Your task to perform on an android device: Play the new Bruno Mars video on YouTube Image 0: 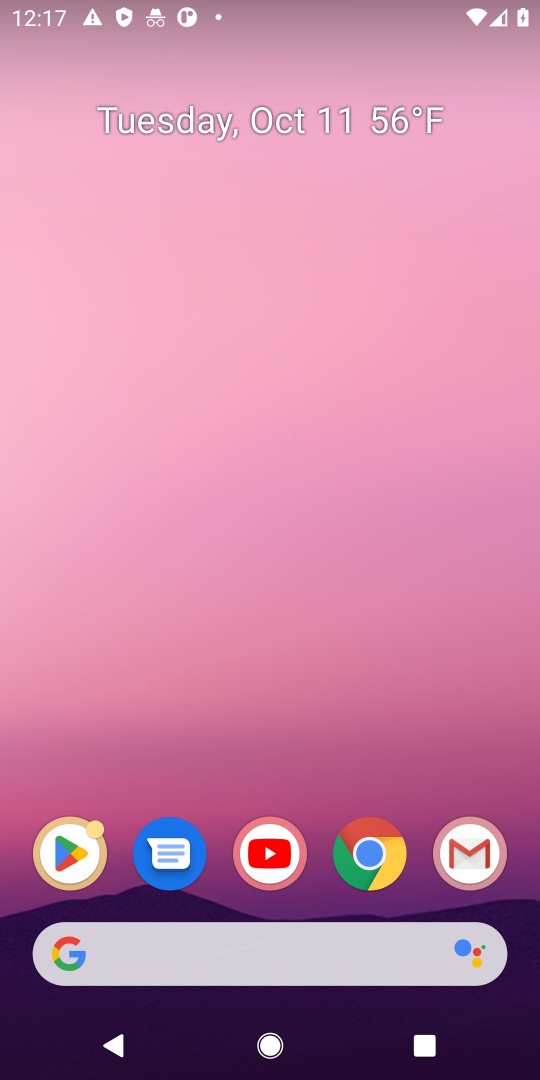
Step 0: drag from (270, 730) to (529, 946)
Your task to perform on an android device: Play the new Bruno Mars video on YouTube Image 1: 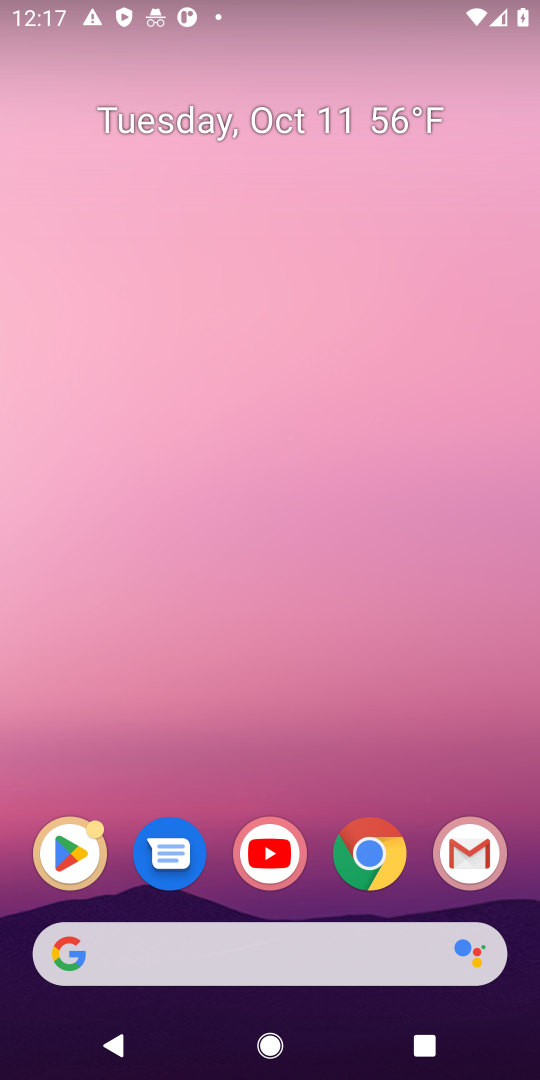
Step 1: drag from (307, 789) to (379, 18)
Your task to perform on an android device: Play the new Bruno Mars video on YouTube Image 2: 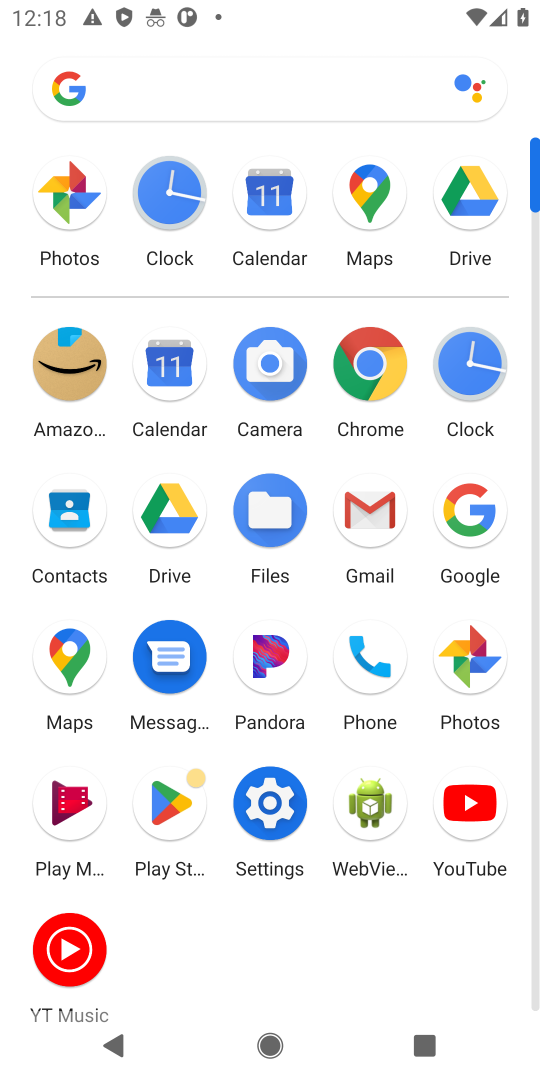
Step 2: click (466, 799)
Your task to perform on an android device: Play the new Bruno Mars video on YouTube Image 3: 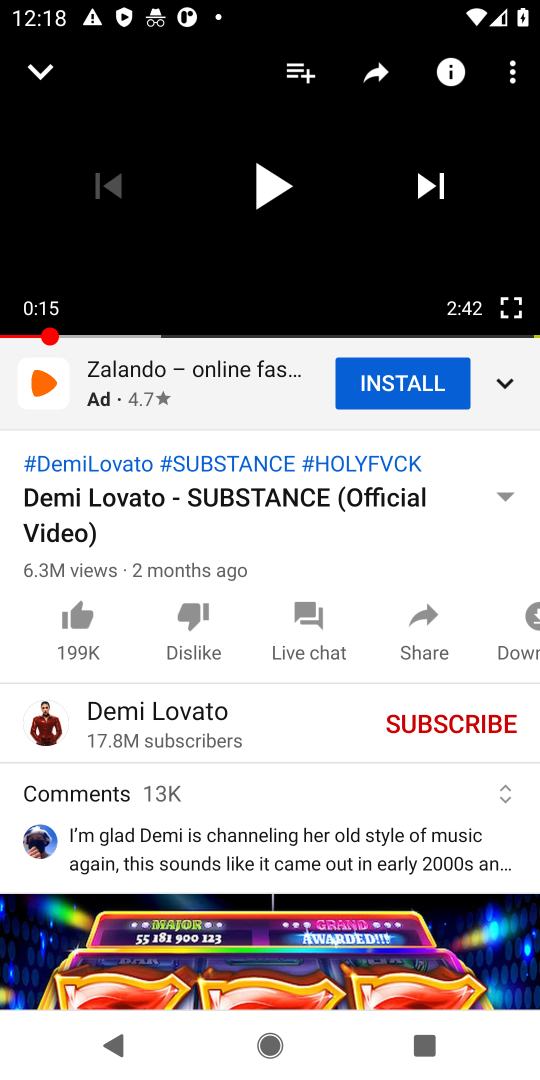
Step 3: drag from (321, 185) to (220, 976)
Your task to perform on an android device: Play the new Bruno Mars video on YouTube Image 4: 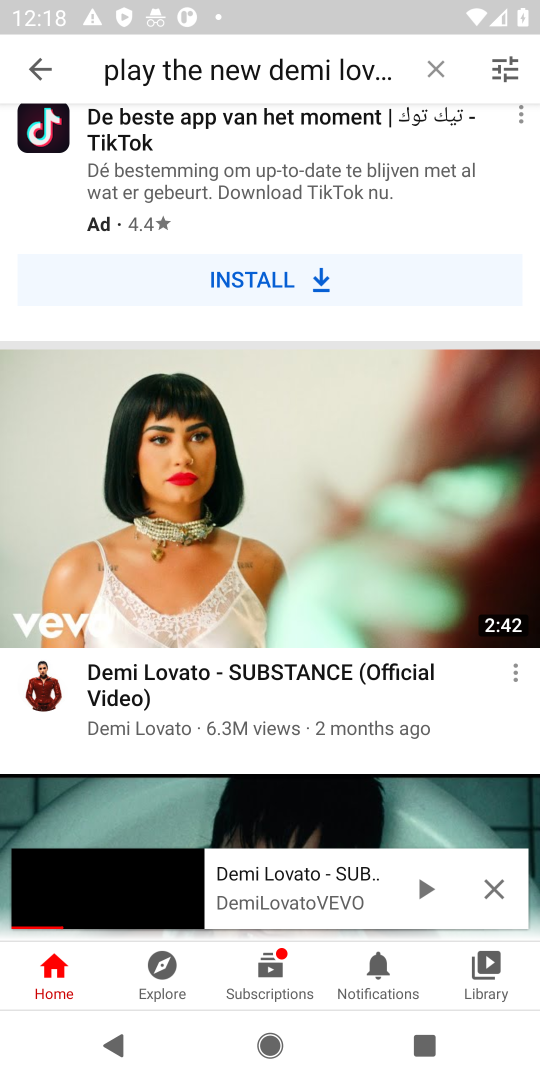
Step 4: click (438, 68)
Your task to perform on an android device: Play the new Bruno Mars video on YouTube Image 5: 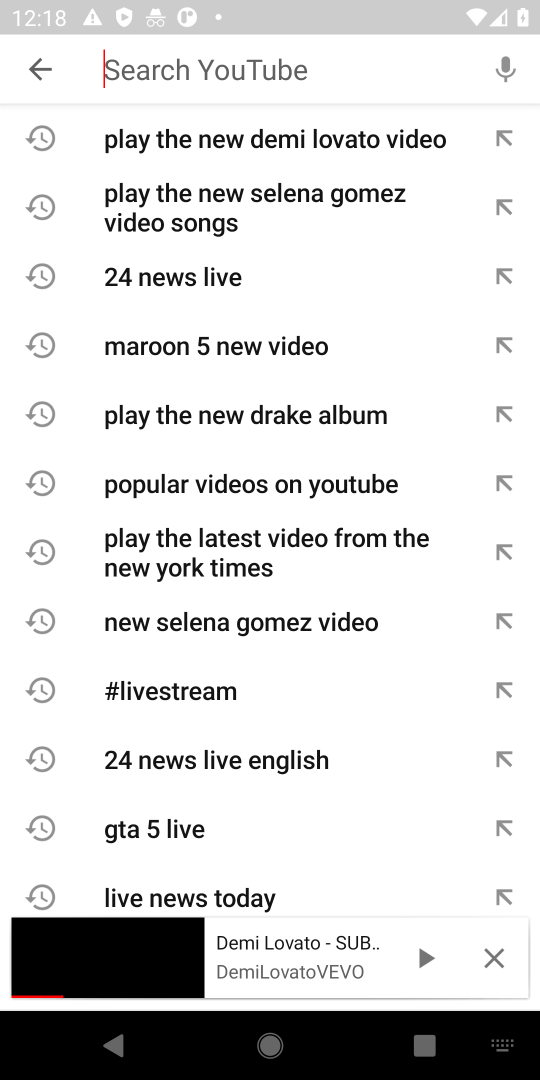
Step 5: type "Play the new Bruno Mars video on YouTube"
Your task to perform on an android device: Play the new Bruno Mars video on YouTube Image 6: 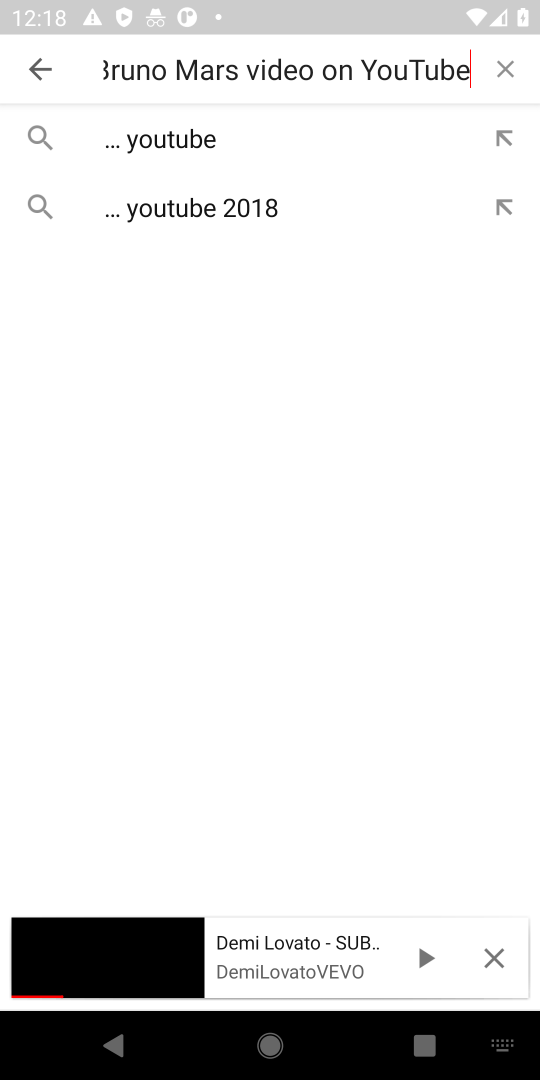
Step 6: click (166, 141)
Your task to perform on an android device: Play the new Bruno Mars video on YouTube Image 7: 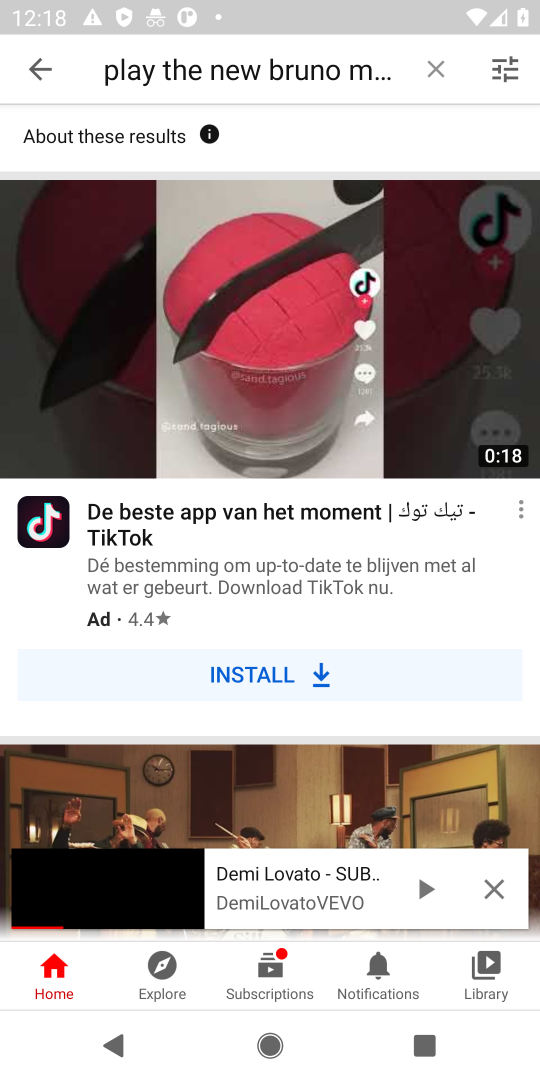
Step 7: drag from (267, 752) to (368, 217)
Your task to perform on an android device: Play the new Bruno Mars video on YouTube Image 8: 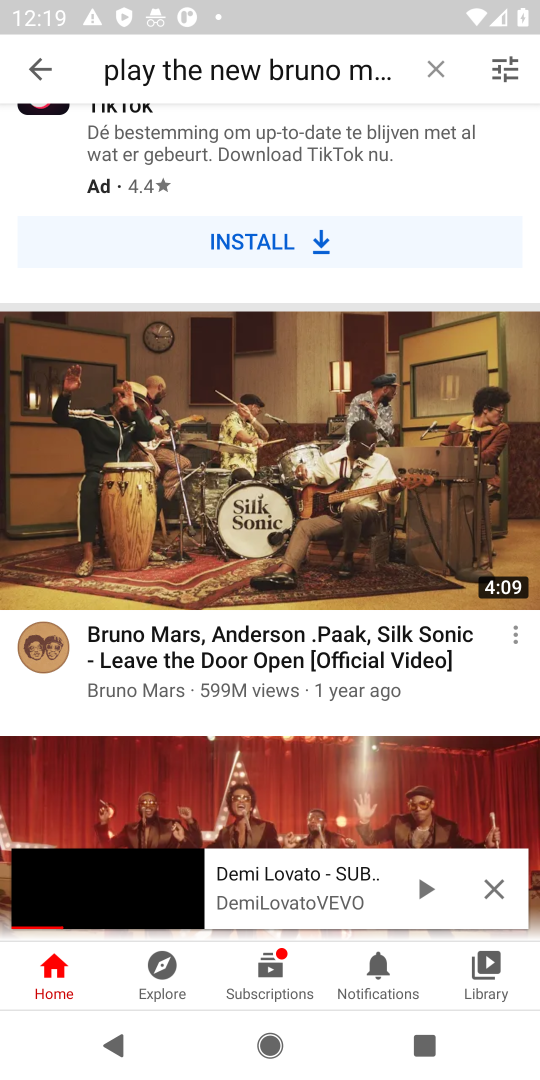
Step 8: click (216, 520)
Your task to perform on an android device: Play the new Bruno Mars video on YouTube Image 9: 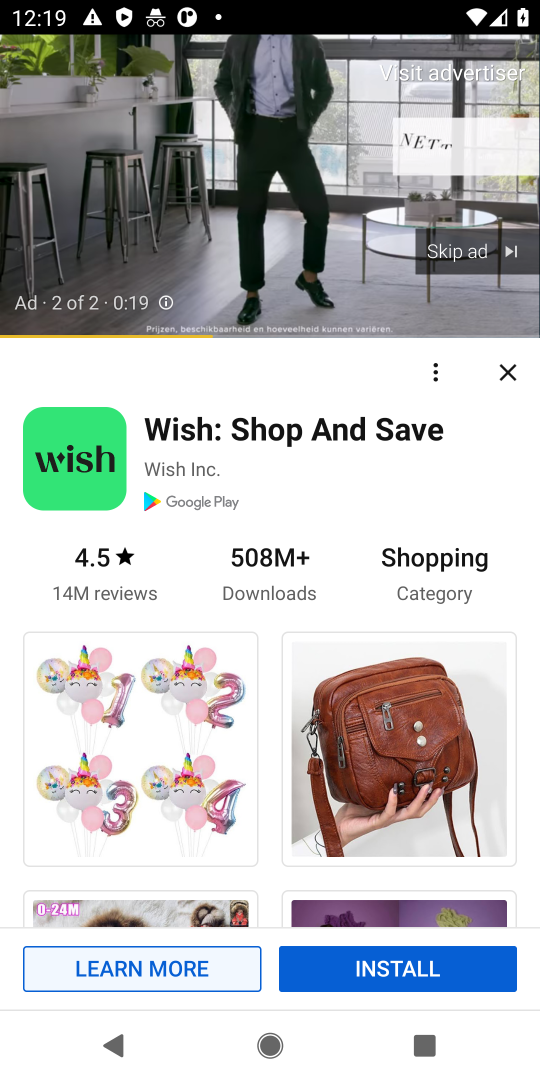
Step 9: click (473, 254)
Your task to perform on an android device: Play the new Bruno Mars video on YouTube Image 10: 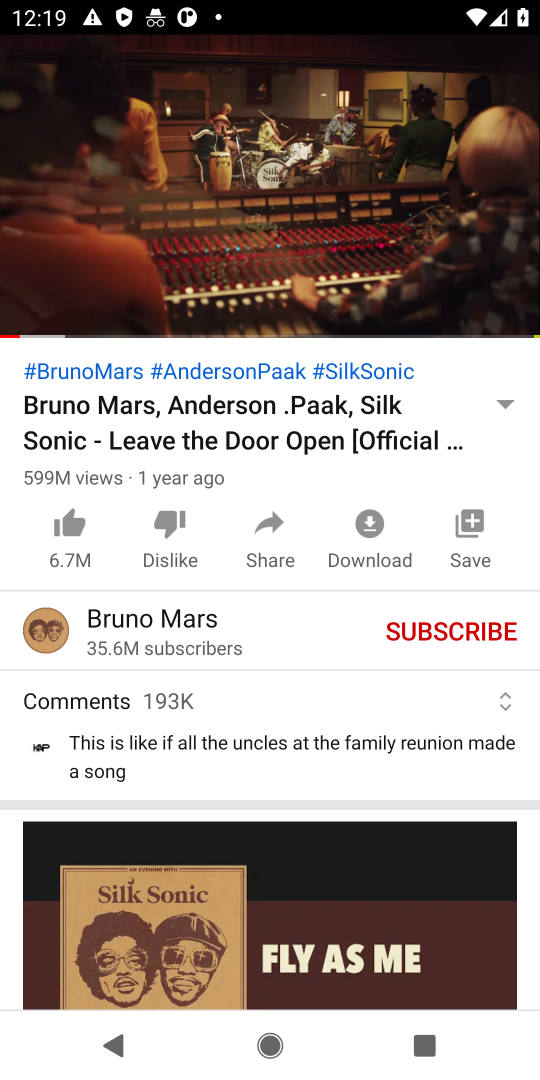
Step 10: task complete